Your task to perform on an android device: Open accessibility settings Image 0: 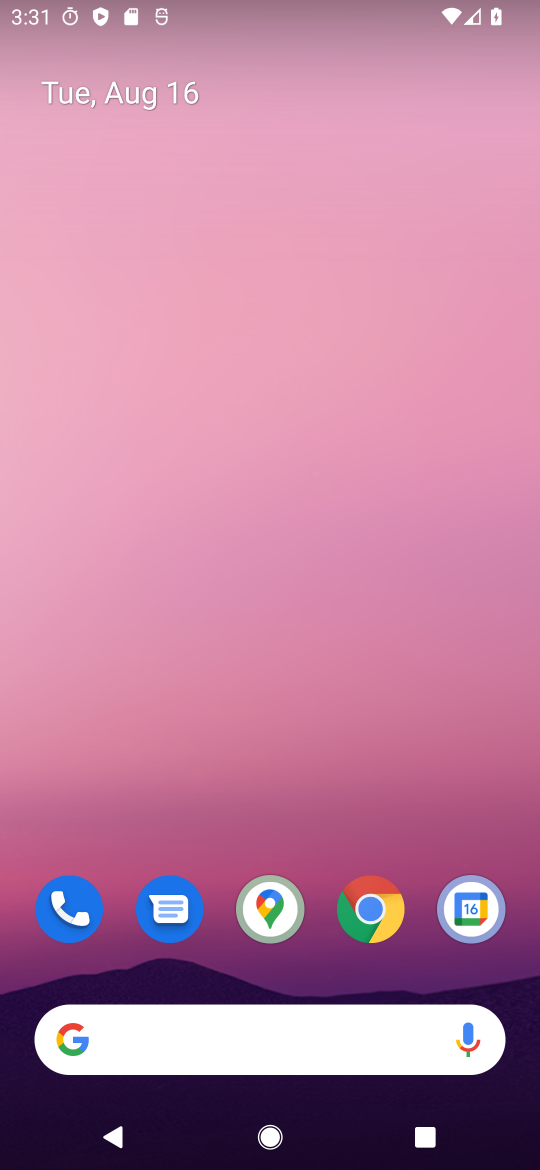
Step 0: drag from (248, 956) to (266, 140)
Your task to perform on an android device: Open accessibility settings Image 1: 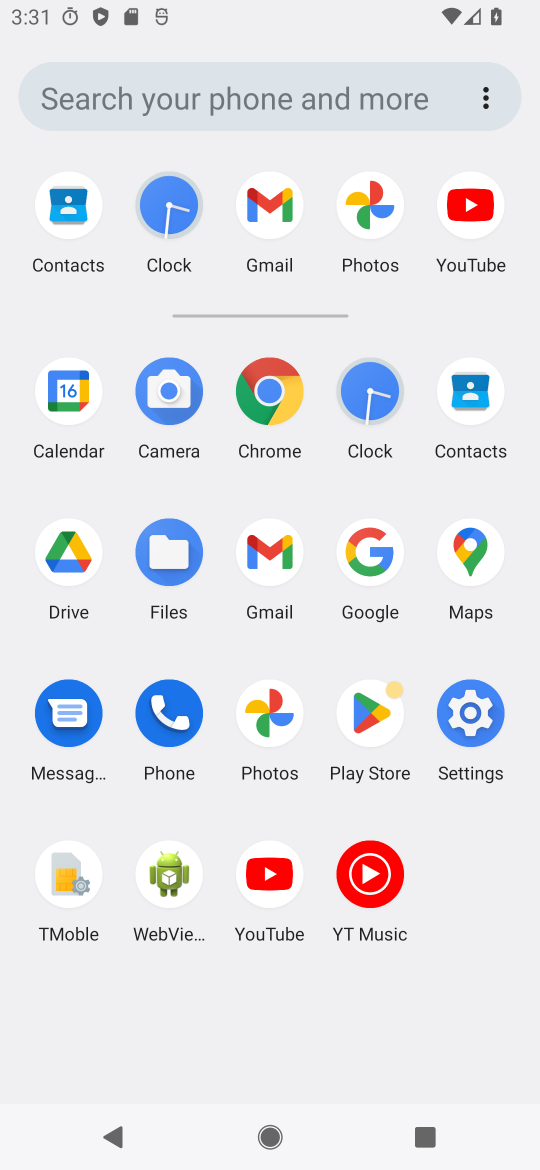
Step 1: click (476, 714)
Your task to perform on an android device: Open accessibility settings Image 2: 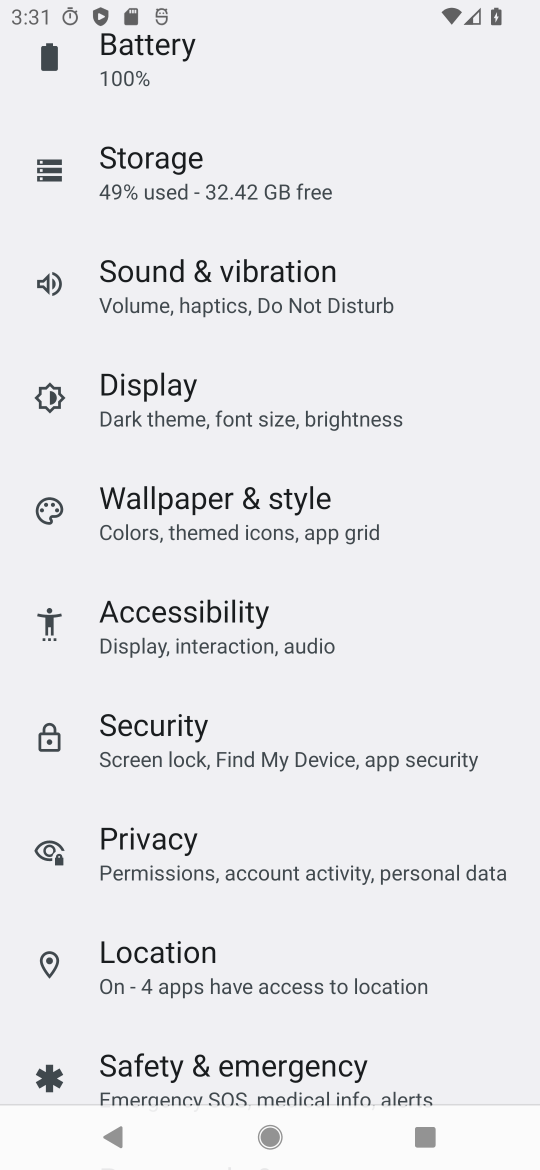
Step 2: click (151, 636)
Your task to perform on an android device: Open accessibility settings Image 3: 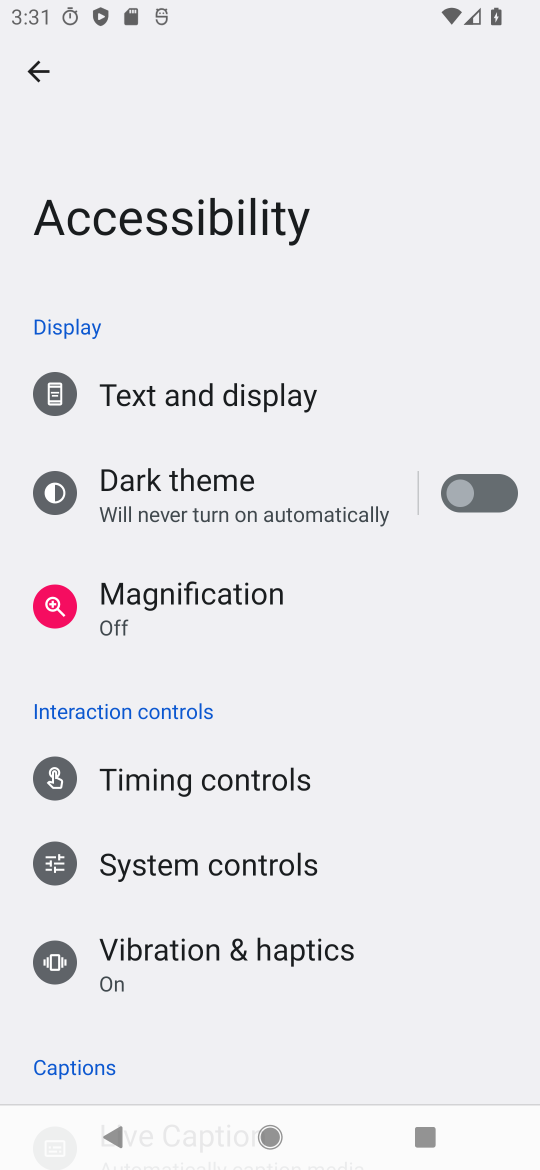
Step 3: task complete